Your task to perform on an android device: toggle wifi Image 0: 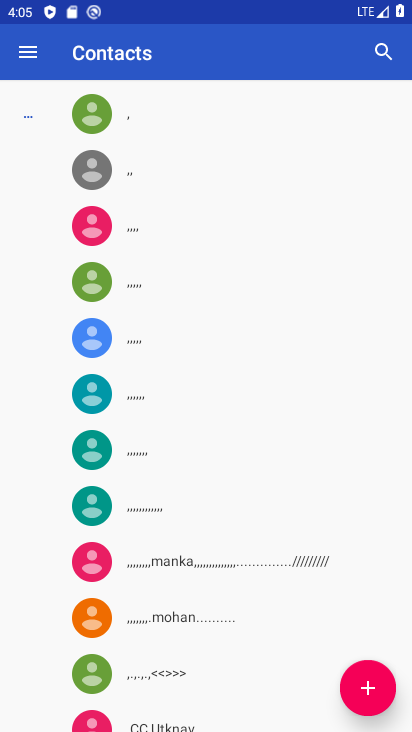
Step 0: drag from (307, 11) to (305, 515)
Your task to perform on an android device: toggle wifi Image 1: 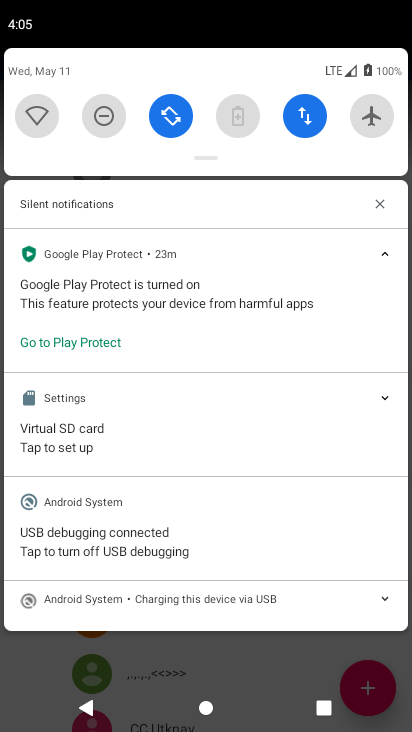
Step 1: click (34, 116)
Your task to perform on an android device: toggle wifi Image 2: 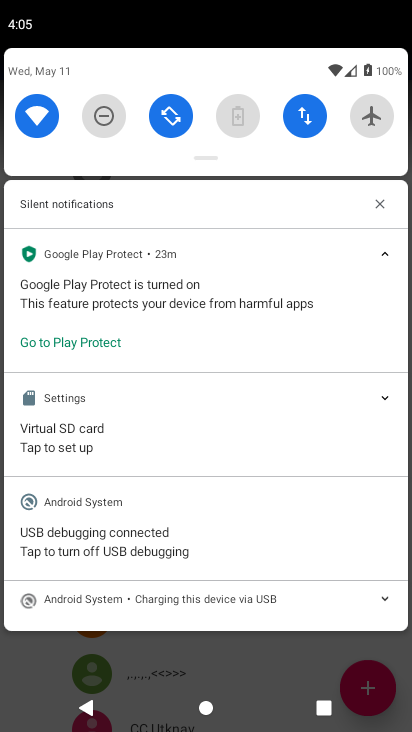
Step 2: task complete